Your task to perform on an android device: turn off notifications settings in the gmail app Image 0: 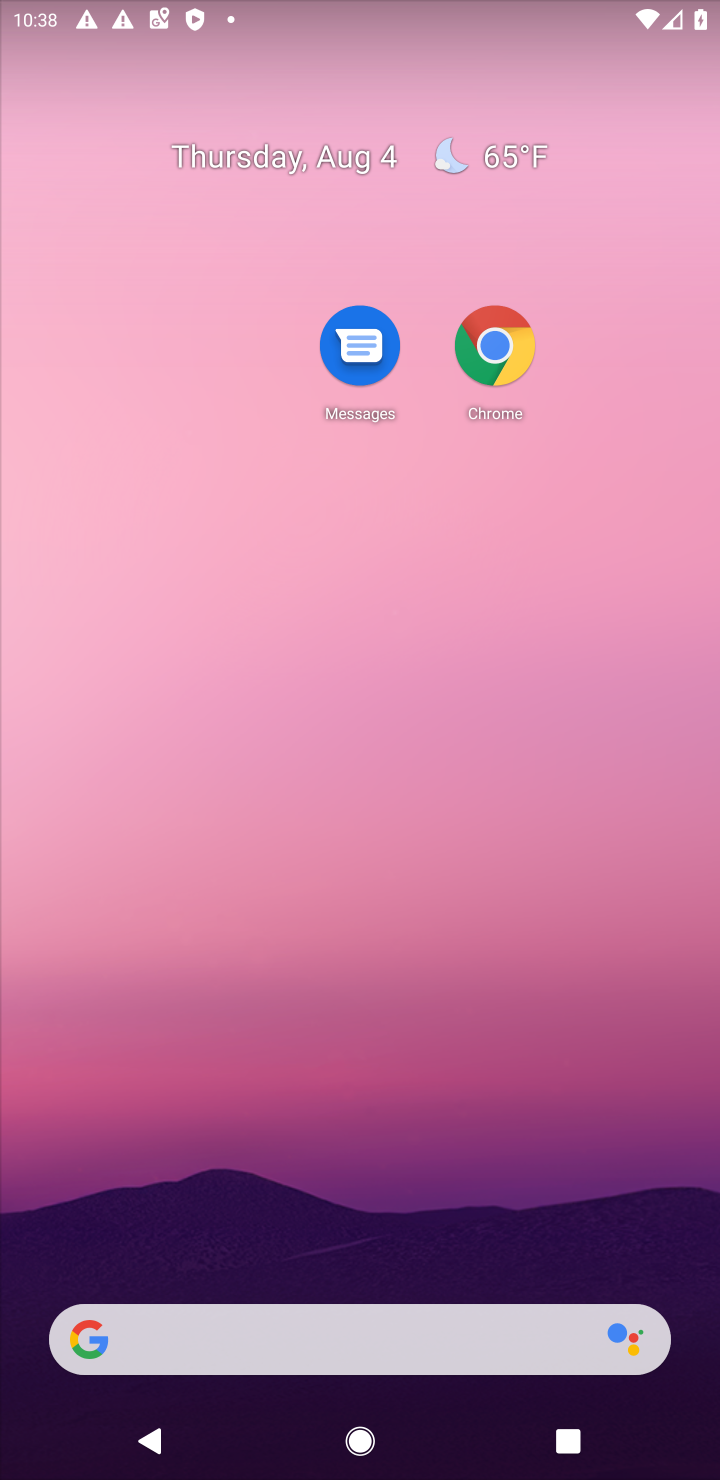
Step 0: drag from (285, 1277) to (430, 8)
Your task to perform on an android device: turn off notifications settings in the gmail app Image 1: 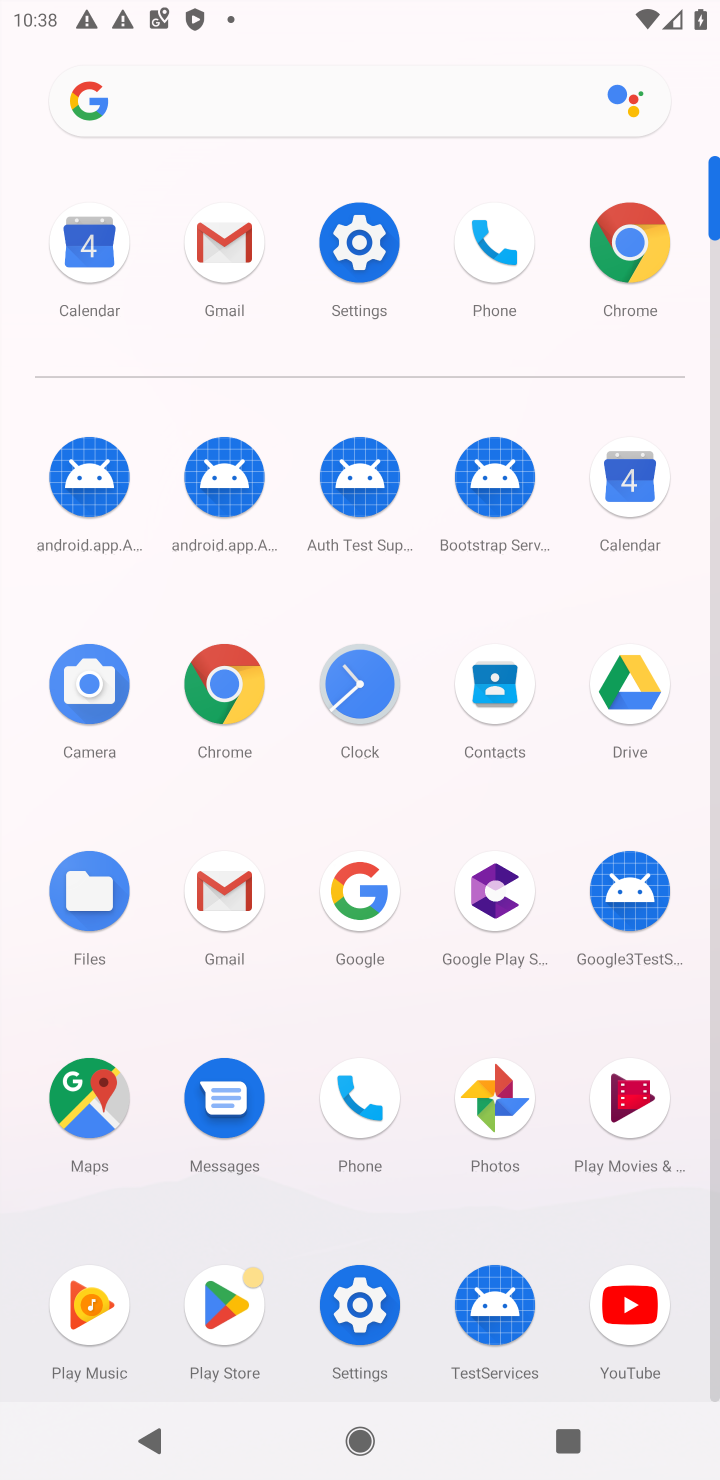
Step 1: click (224, 243)
Your task to perform on an android device: turn off notifications settings in the gmail app Image 2: 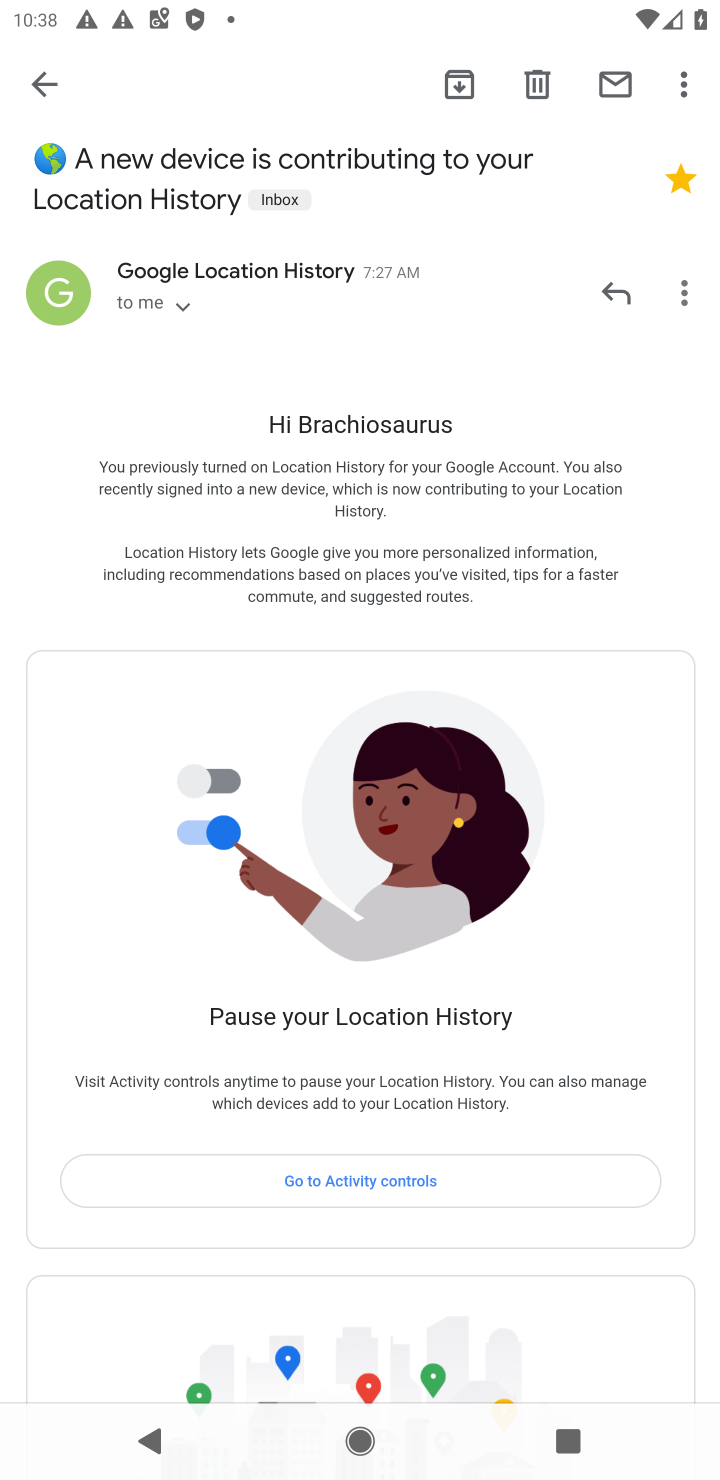
Step 2: click (64, 100)
Your task to perform on an android device: turn off notifications settings in the gmail app Image 3: 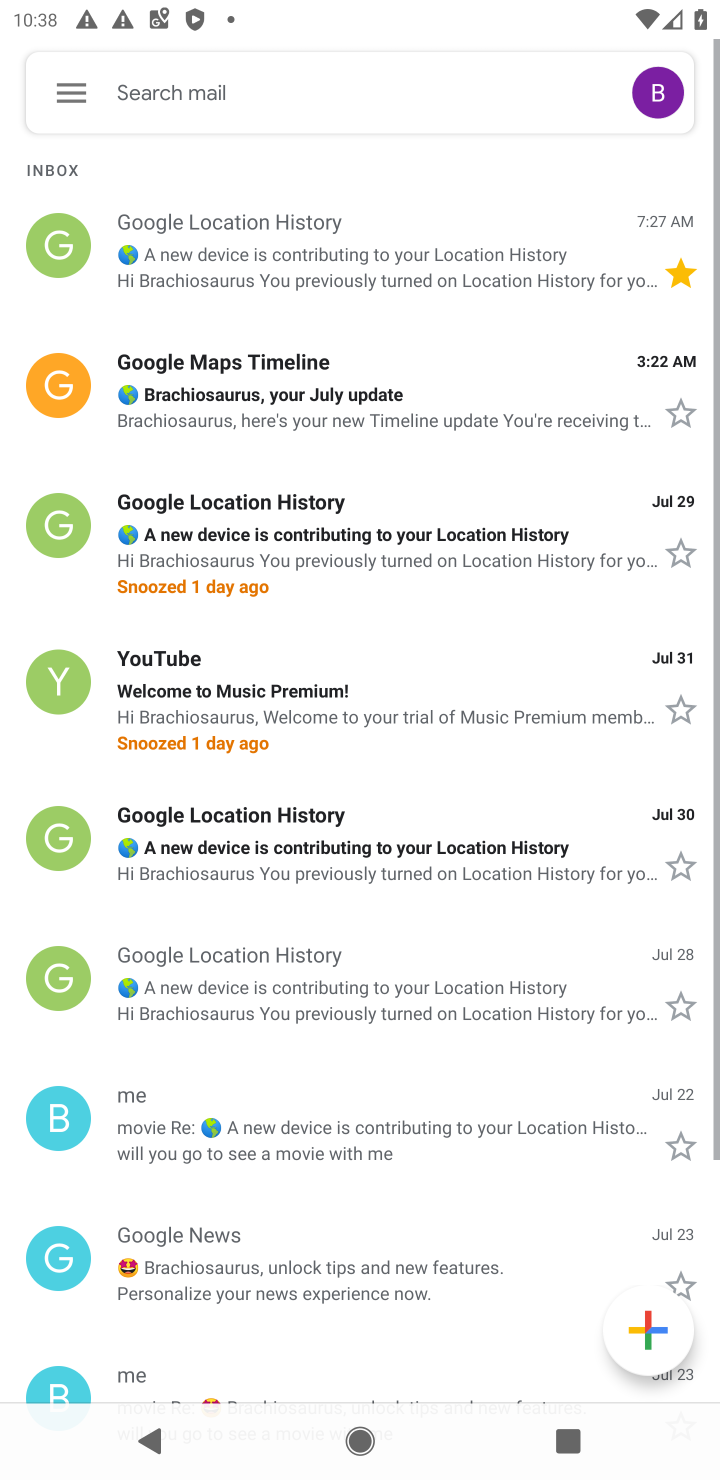
Step 3: click (68, 96)
Your task to perform on an android device: turn off notifications settings in the gmail app Image 4: 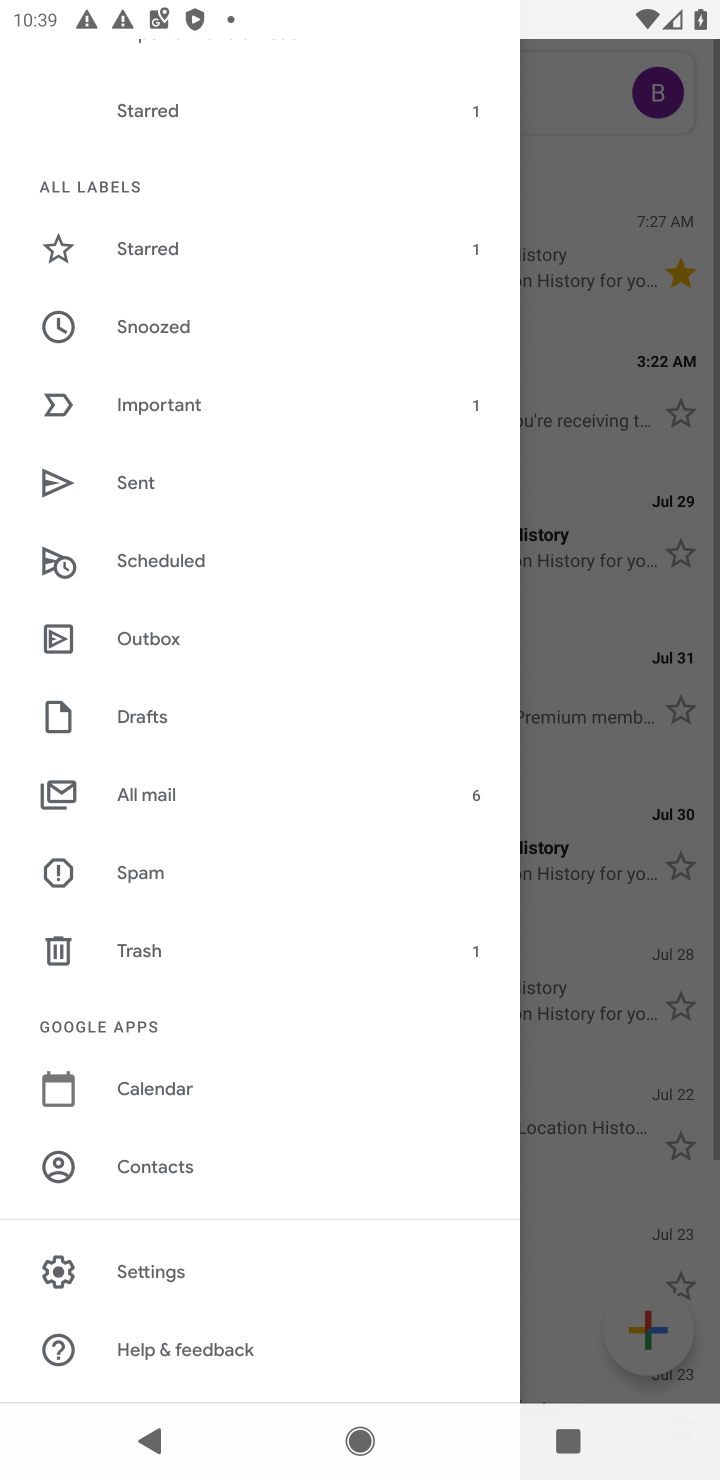
Step 4: click (160, 1270)
Your task to perform on an android device: turn off notifications settings in the gmail app Image 5: 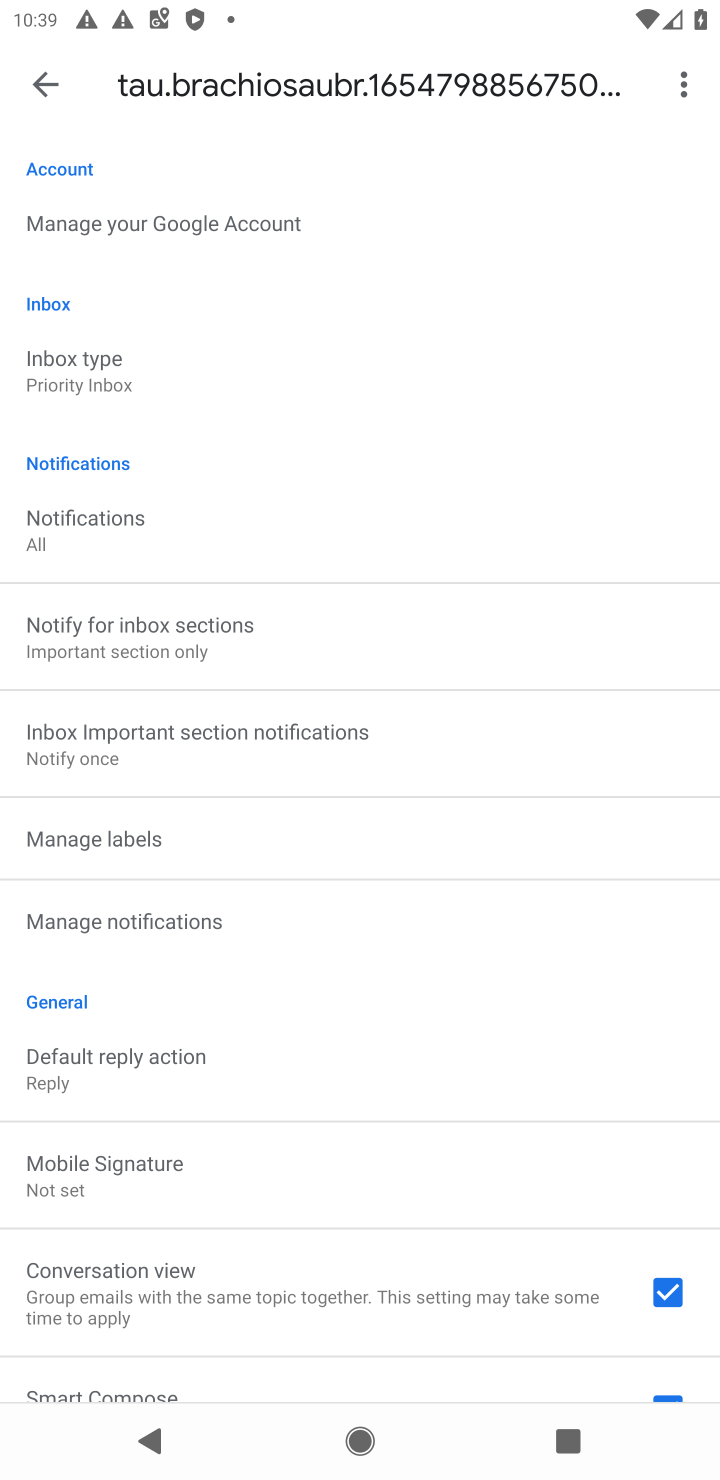
Step 5: click (57, 552)
Your task to perform on an android device: turn off notifications settings in the gmail app Image 6: 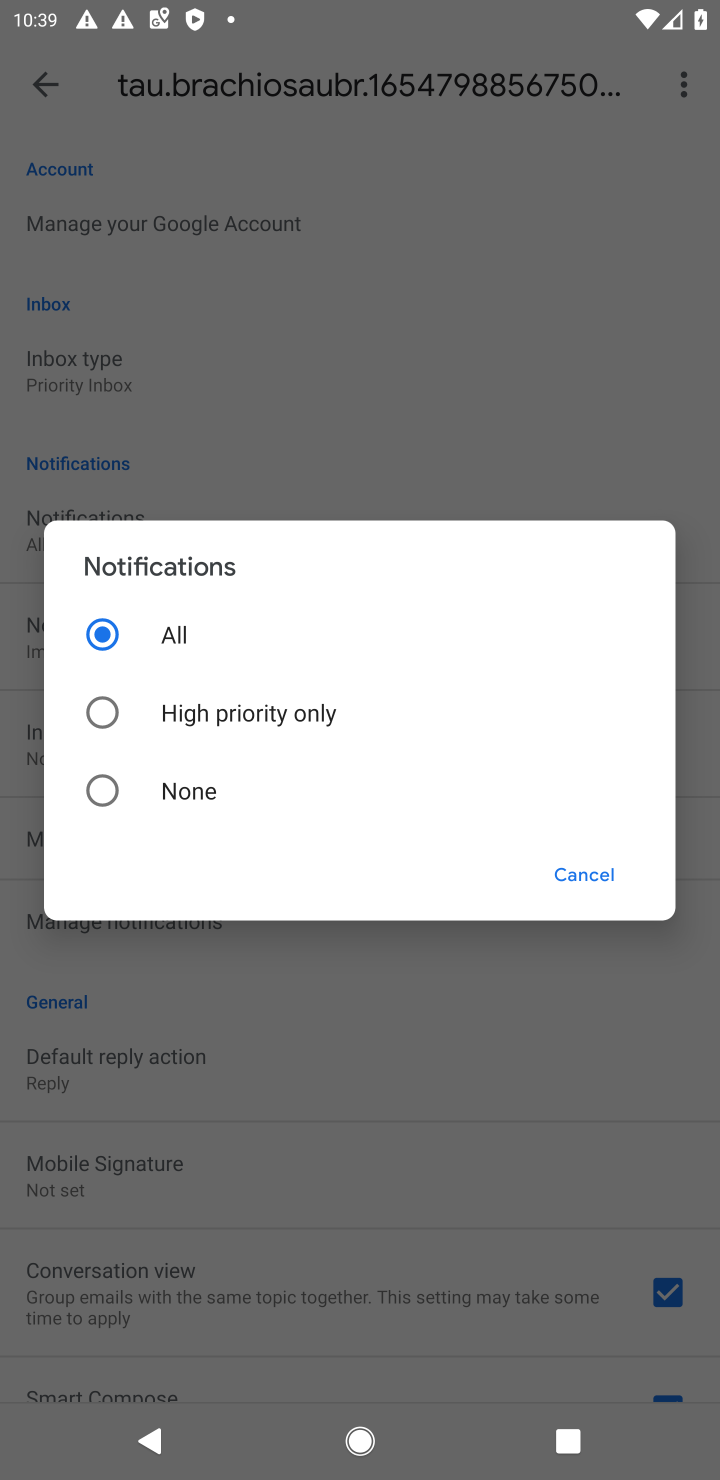
Step 6: click (76, 798)
Your task to perform on an android device: turn off notifications settings in the gmail app Image 7: 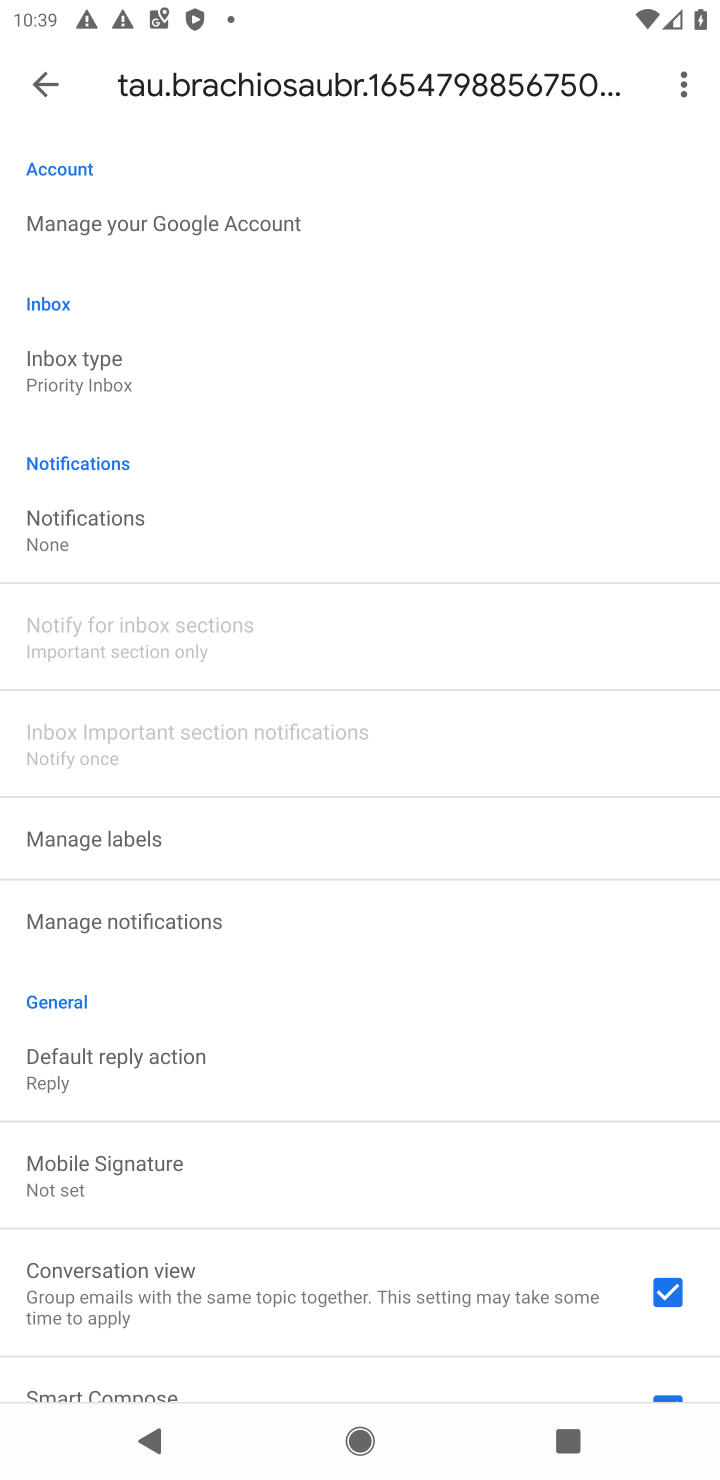
Step 7: task complete